Your task to perform on an android device: turn off notifications in google photos Image 0: 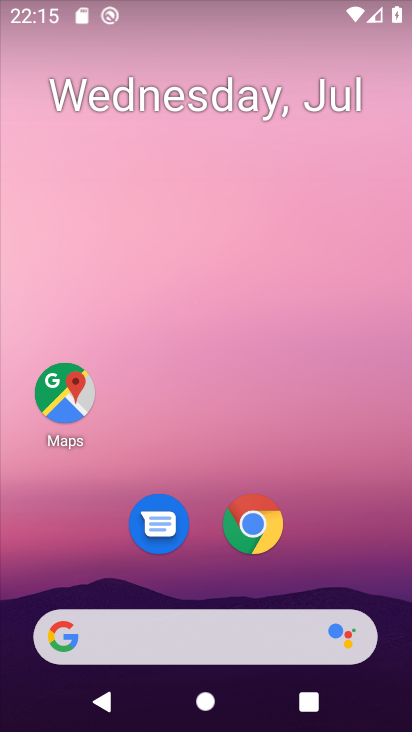
Step 0: drag from (330, 552) to (356, 14)
Your task to perform on an android device: turn off notifications in google photos Image 1: 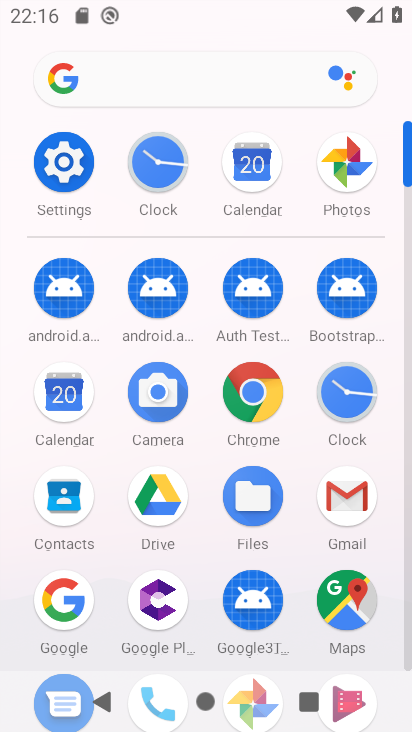
Step 1: click (343, 173)
Your task to perform on an android device: turn off notifications in google photos Image 2: 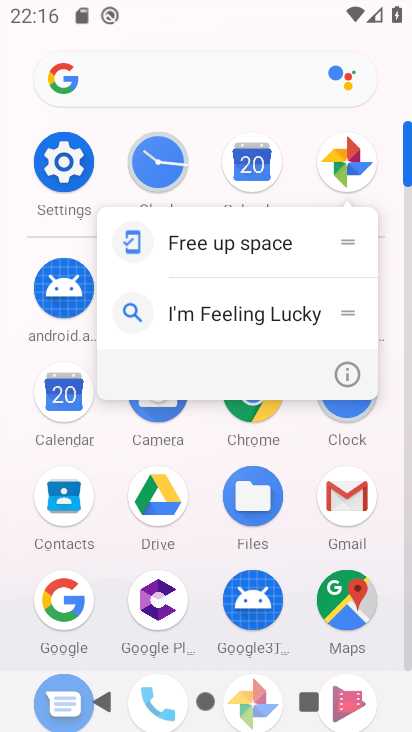
Step 2: click (346, 159)
Your task to perform on an android device: turn off notifications in google photos Image 3: 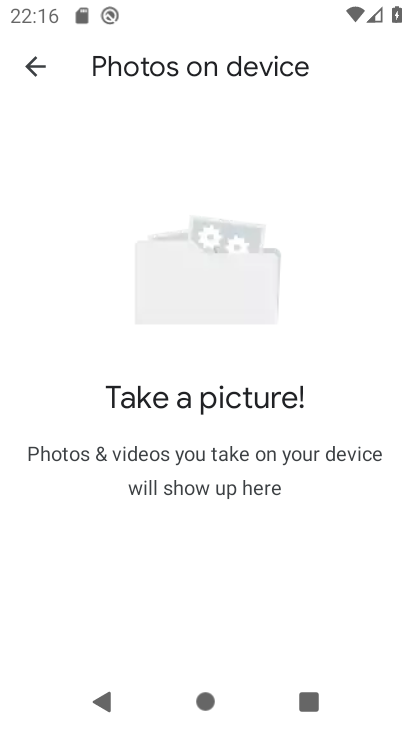
Step 3: click (40, 61)
Your task to perform on an android device: turn off notifications in google photos Image 4: 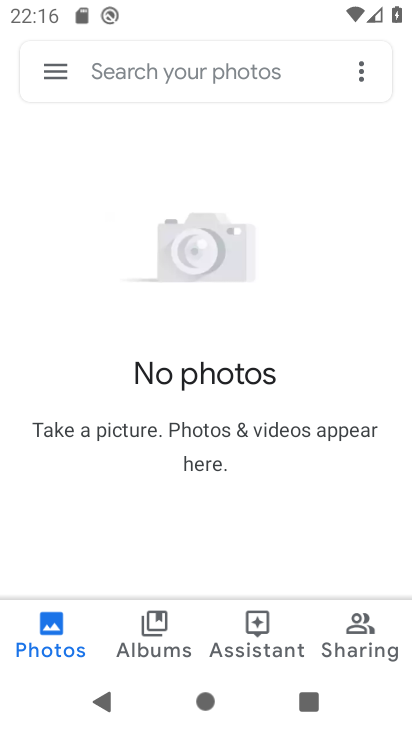
Step 4: click (52, 70)
Your task to perform on an android device: turn off notifications in google photos Image 5: 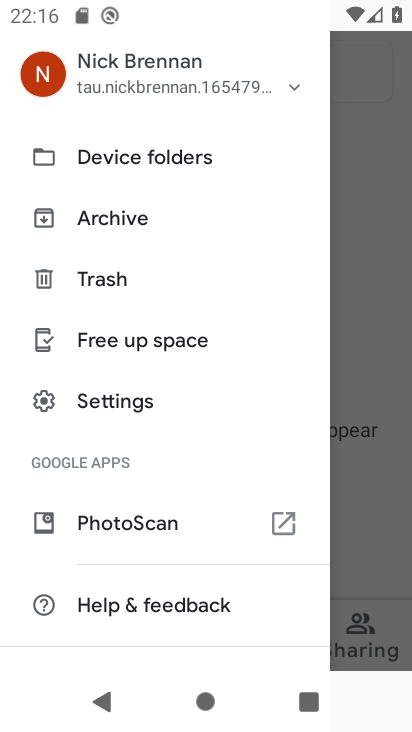
Step 5: click (108, 393)
Your task to perform on an android device: turn off notifications in google photos Image 6: 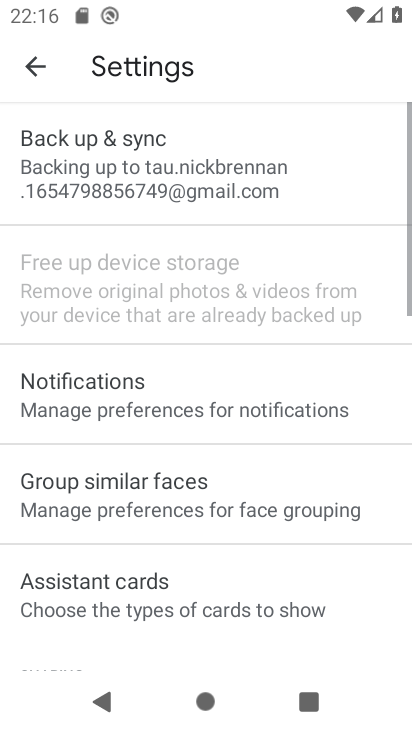
Step 6: click (110, 393)
Your task to perform on an android device: turn off notifications in google photos Image 7: 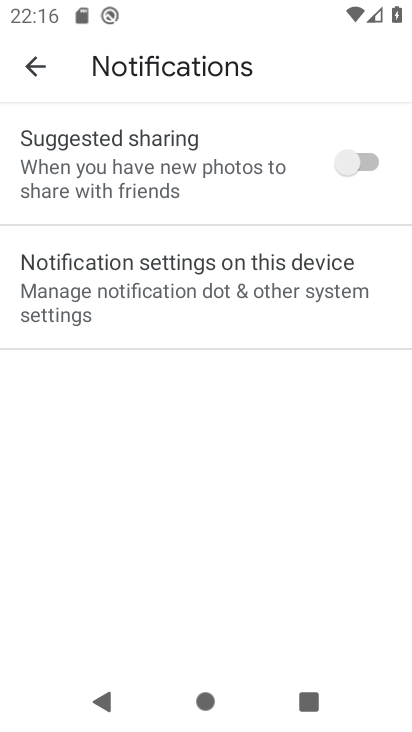
Step 7: click (200, 274)
Your task to perform on an android device: turn off notifications in google photos Image 8: 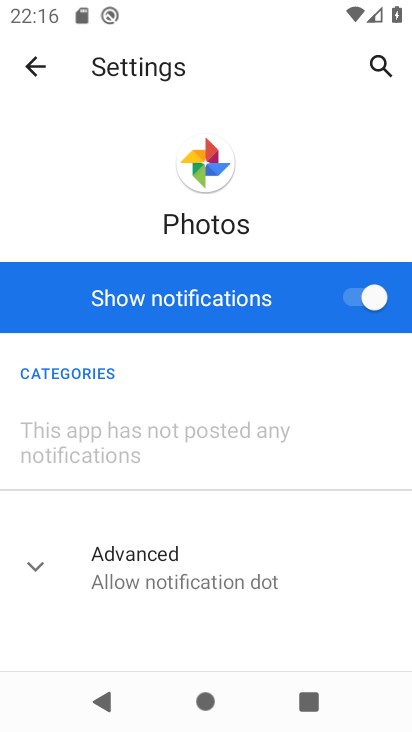
Step 8: click (358, 294)
Your task to perform on an android device: turn off notifications in google photos Image 9: 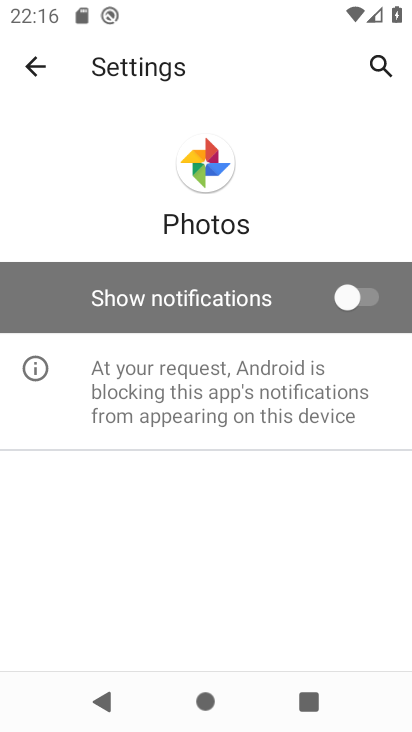
Step 9: task complete